Your task to perform on an android device: read, delete, or share a saved page in the chrome app Image 0: 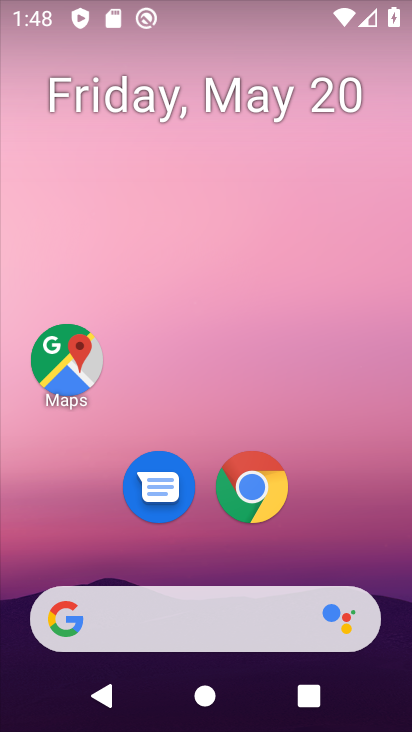
Step 0: drag from (285, 473) to (321, 87)
Your task to perform on an android device: read, delete, or share a saved page in the chrome app Image 1: 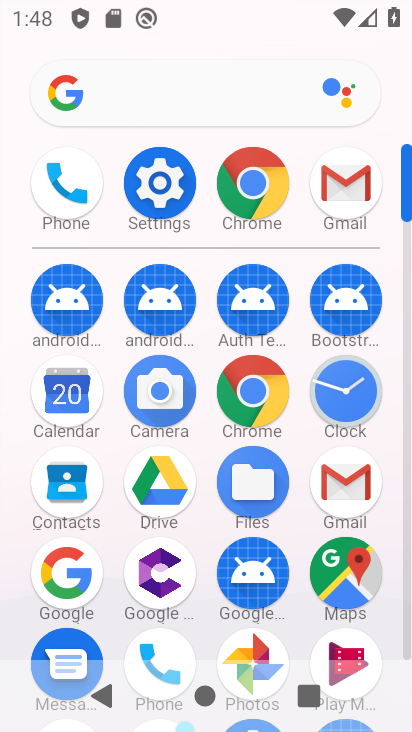
Step 1: click (249, 167)
Your task to perform on an android device: read, delete, or share a saved page in the chrome app Image 2: 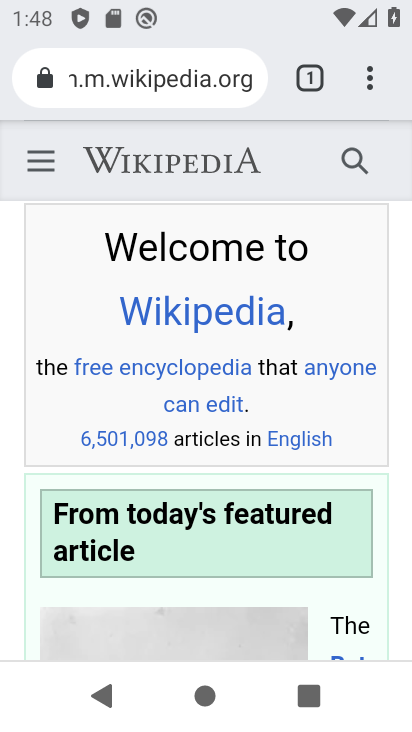
Step 2: task complete